Your task to perform on an android device: Go to accessibility settings Image 0: 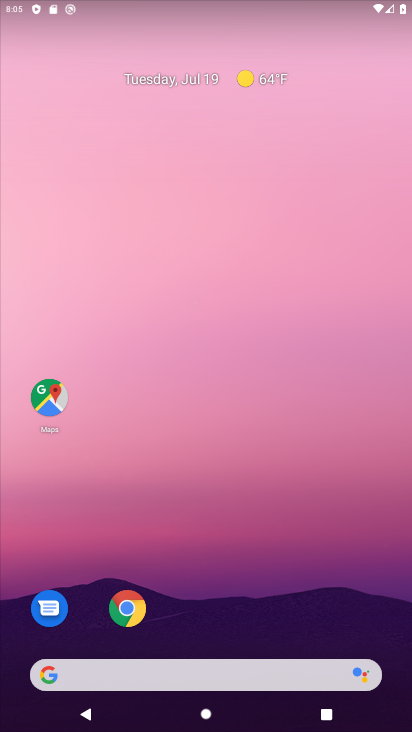
Step 0: drag from (193, 671) to (196, 78)
Your task to perform on an android device: Go to accessibility settings Image 1: 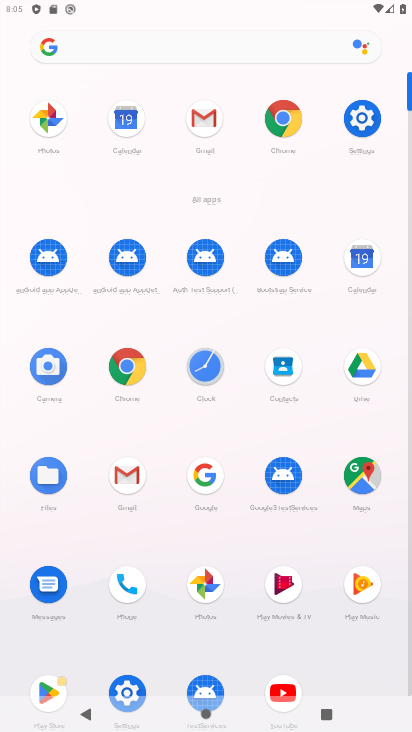
Step 1: click (370, 100)
Your task to perform on an android device: Go to accessibility settings Image 2: 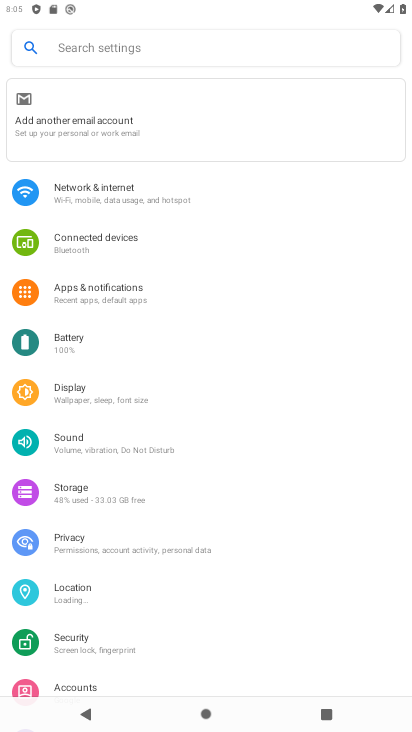
Step 2: drag from (89, 580) to (134, 36)
Your task to perform on an android device: Go to accessibility settings Image 3: 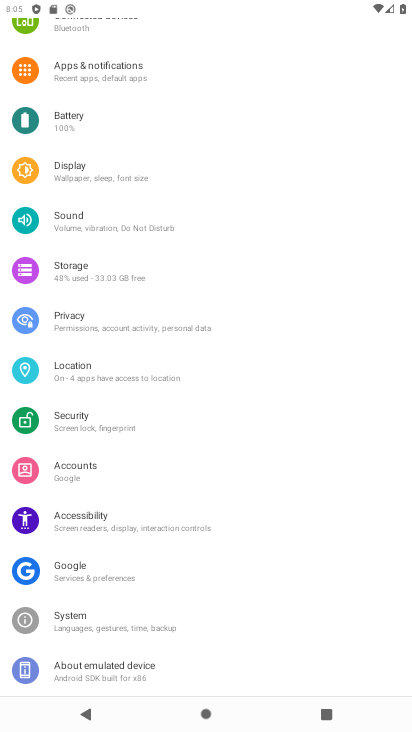
Step 3: click (98, 522)
Your task to perform on an android device: Go to accessibility settings Image 4: 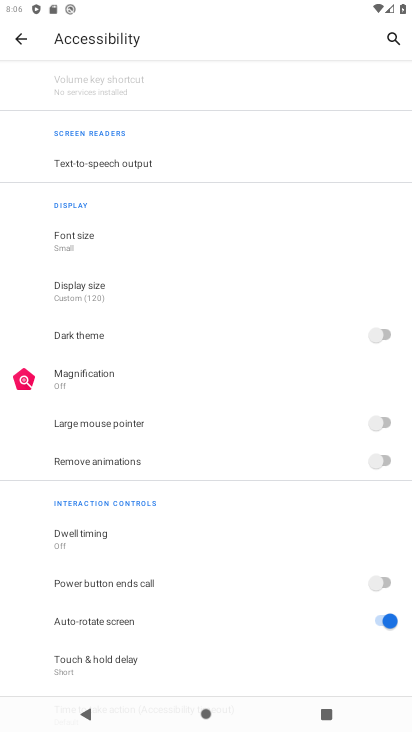
Step 4: task complete